Your task to perform on an android device: Open the phone app and click the voicemail tab. Image 0: 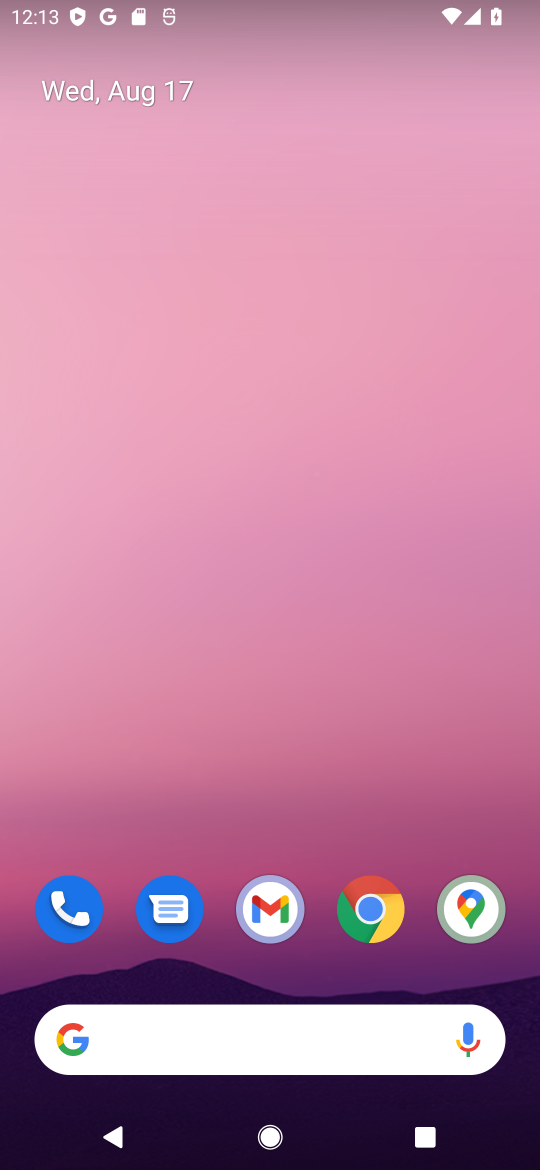
Step 0: drag from (321, 980) to (297, 177)
Your task to perform on an android device: Open the phone app and click the voicemail tab. Image 1: 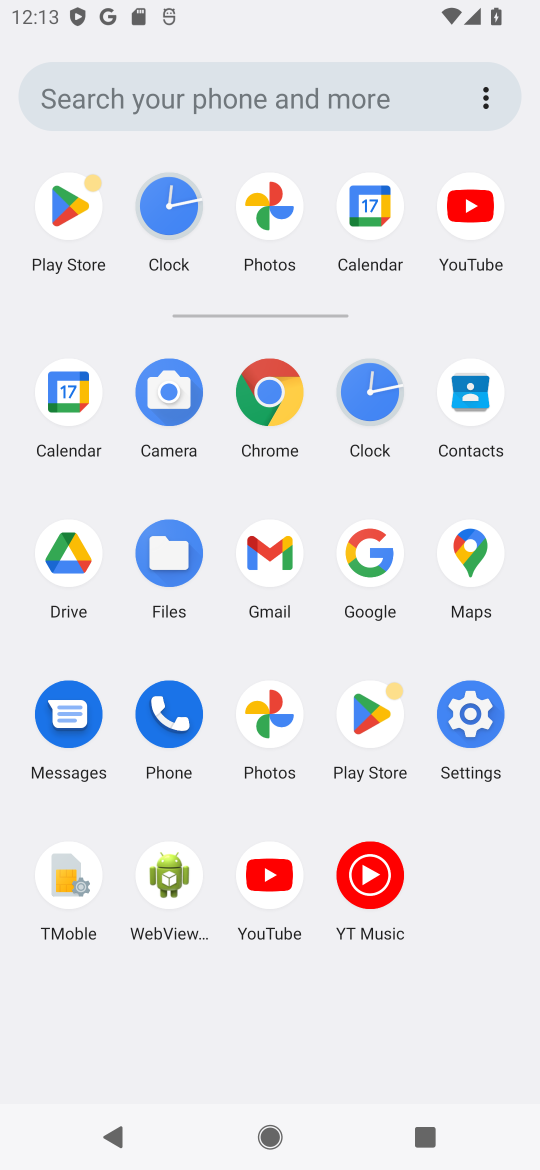
Step 1: click (161, 703)
Your task to perform on an android device: Open the phone app and click the voicemail tab. Image 2: 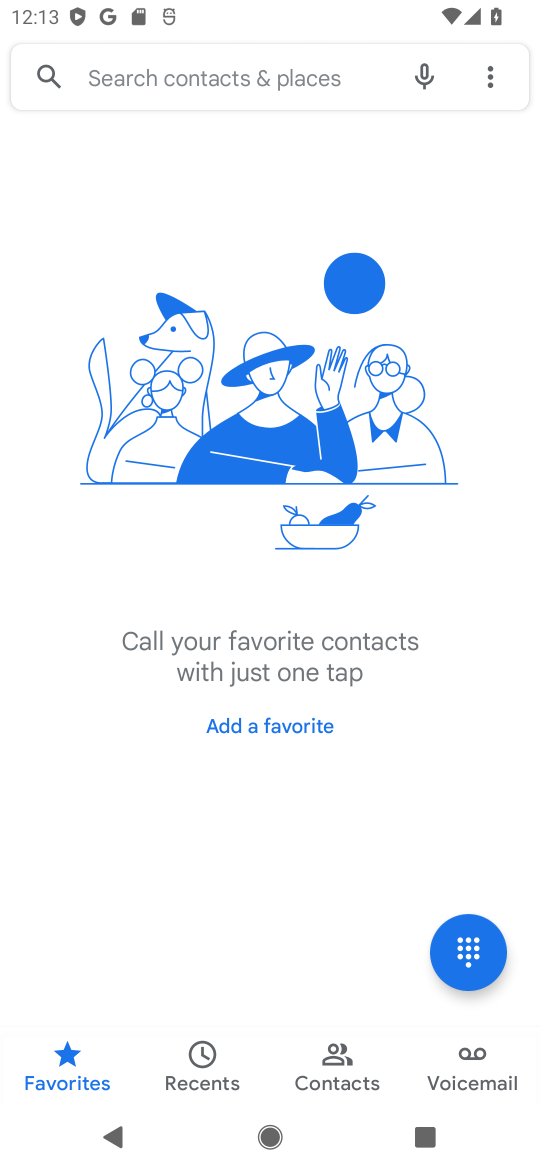
Step 2: click (481, 1049)
Your task to perform on an android device: Open the phone app and click the voicemail tab. Image 3: 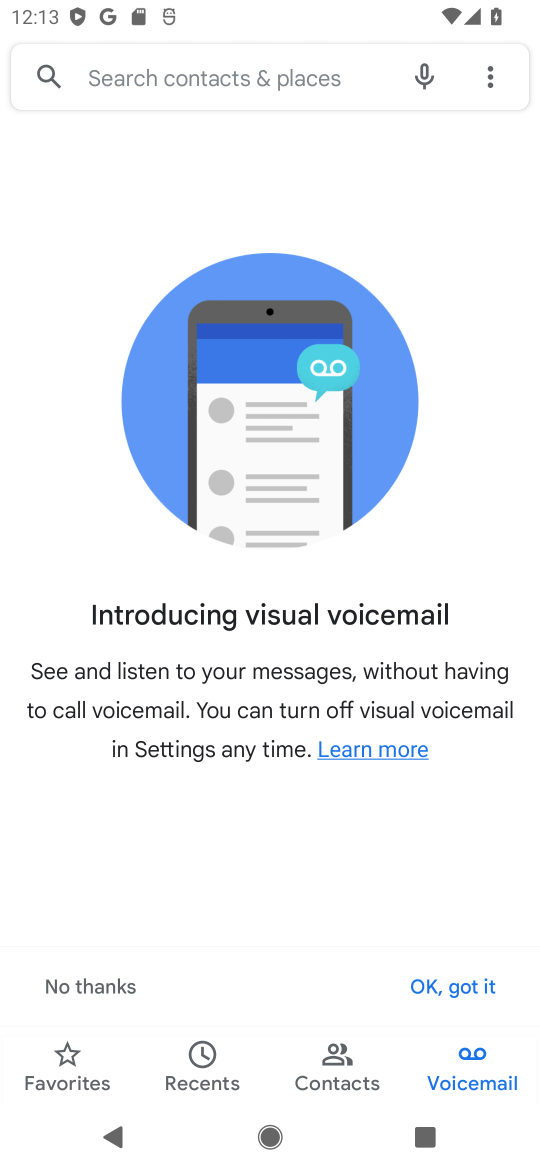
Step 3: task complete